Your task to perform on an android device: Open Google Chrome Image 0: 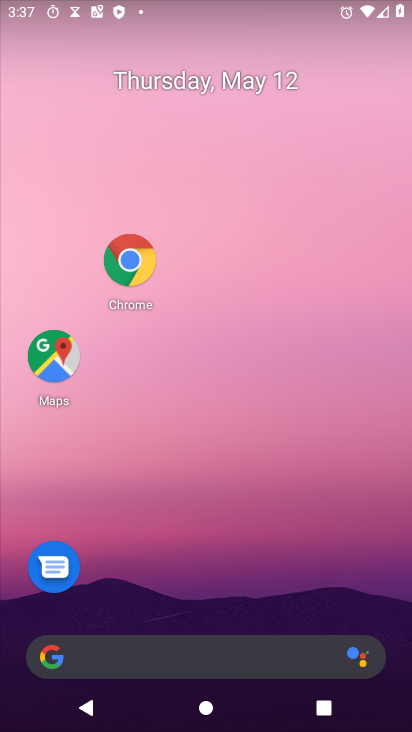
Step 0: press home button
Your task to perform on an android device: Open Google Chrome Image 1: 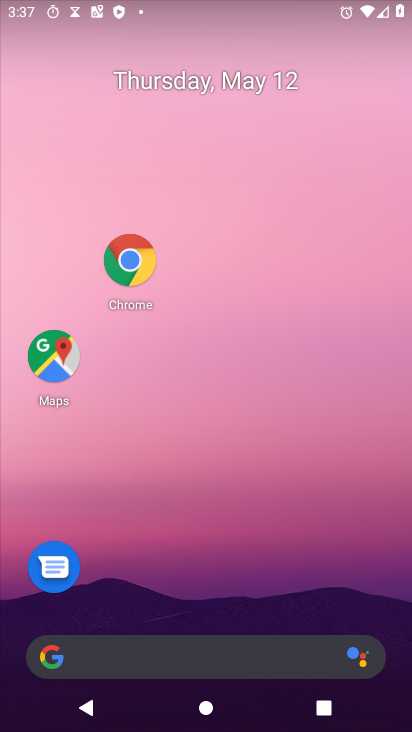
Step 1: click (128, 274)
Your task to perform on an android device: Open Google Chrome Image 2: 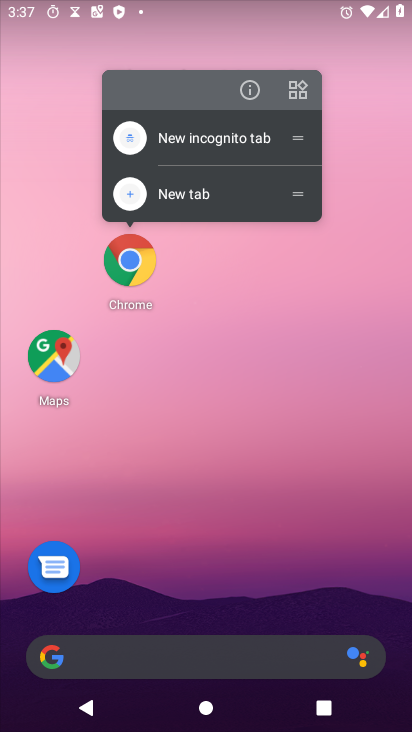
Step 2: click (126, 263)
Your task to perform on an android device: Open Google Chrome Image 3: 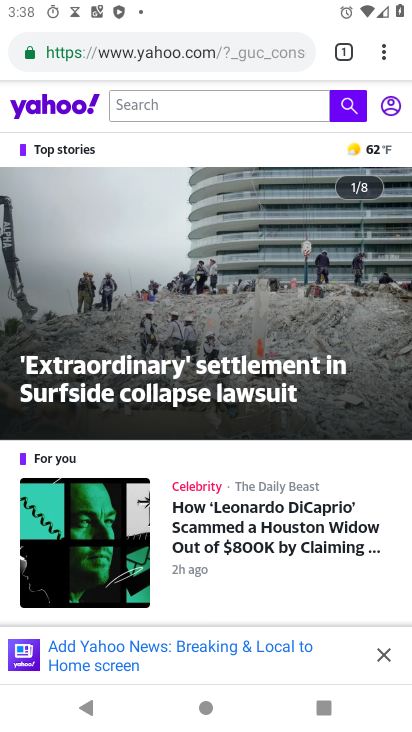
Step 3: task complete